Your task to perform on an android device: Go to notification settings Image 0: 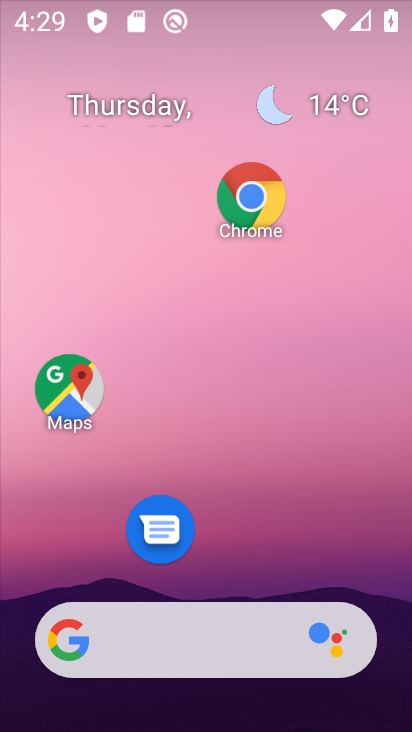
Step 0: press home button
Your task to perform on an android device: Go to notification settings Image 1: 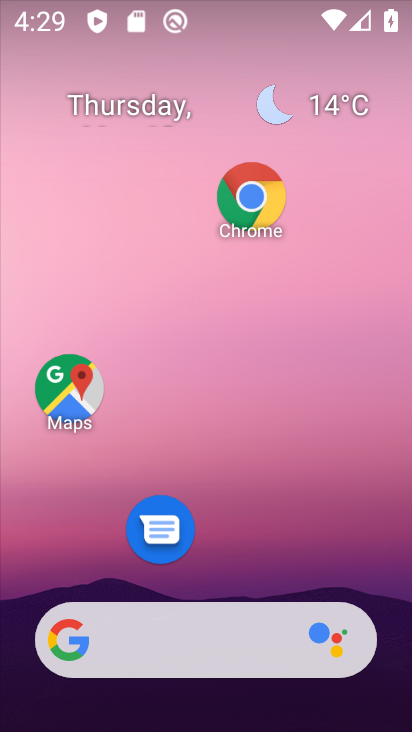
Step 1: drag from (233, 568) to (231, 259)
Your task to perform on an android device: Go to notification settings Image 2: 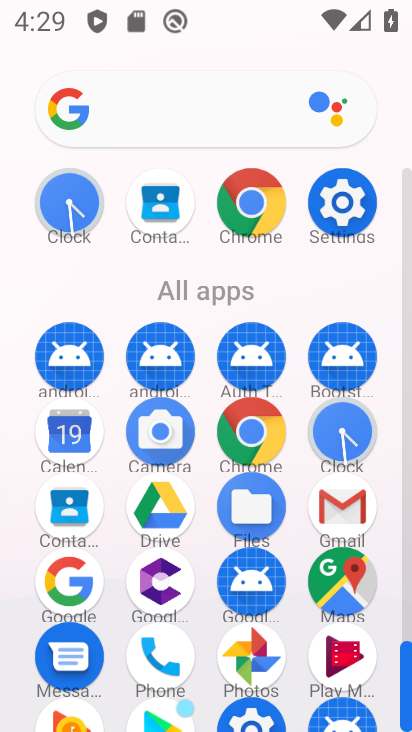
Step 2: click (343, 204)
Your task to perform on an android device: Go to notification settings Image 3: 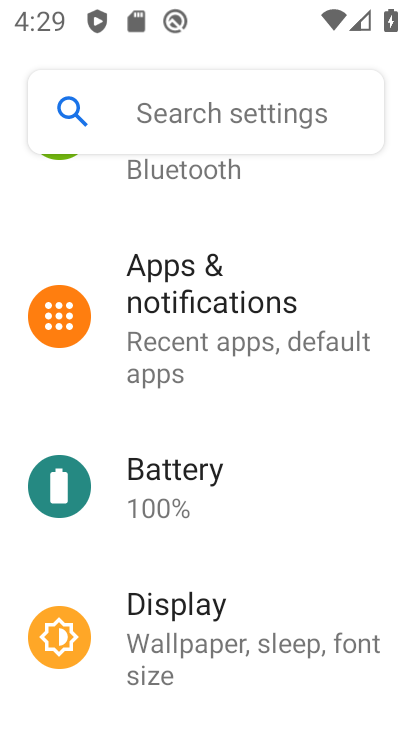
Step 3: click (230, 317)
Your task to perform on an android device: Go to notification settings Image 4: 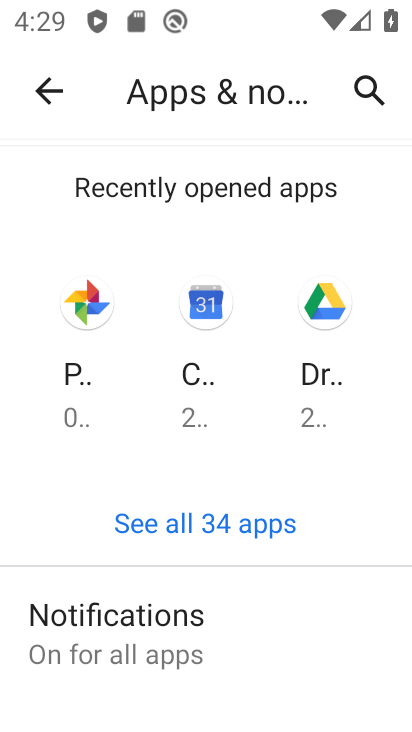
Step 4: click (280, 627)
Your task to perform on an android device: Go to notification settings Image 5: 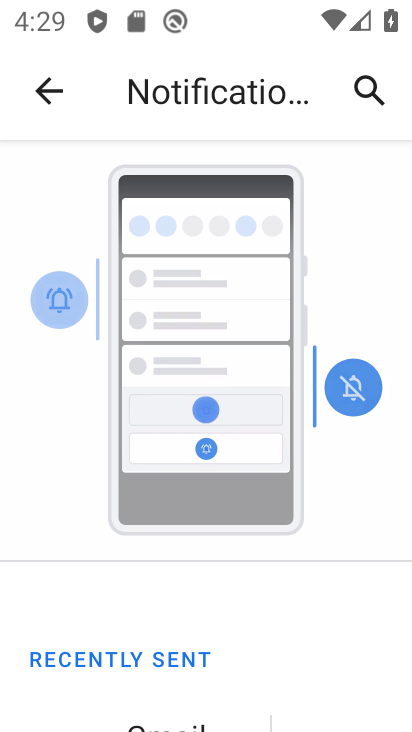
Step 5: task complete